Your task to perform on an android device: Open settings on Google Maps Image 0: 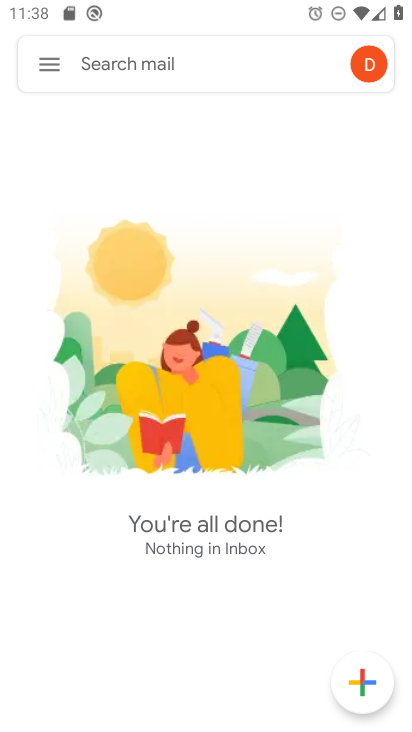
Step 0: press home button
Your task to perform on an android device: Open settings on Google Maps Image 1: 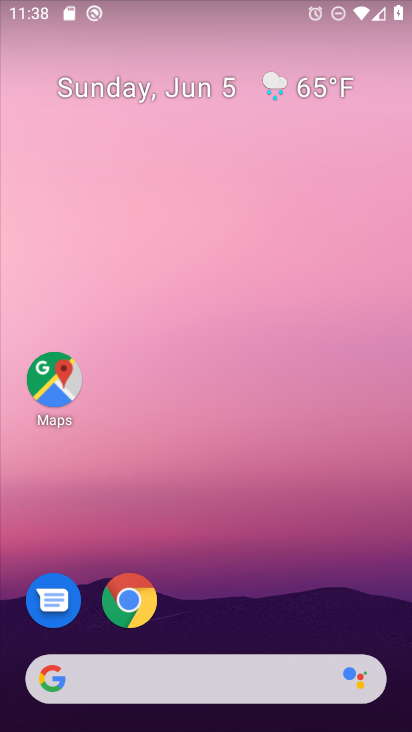
Step 1: drag from (393, 612) to (244, 87)
Your task to perform on an android device: Open settings on Google Maps Image 2: 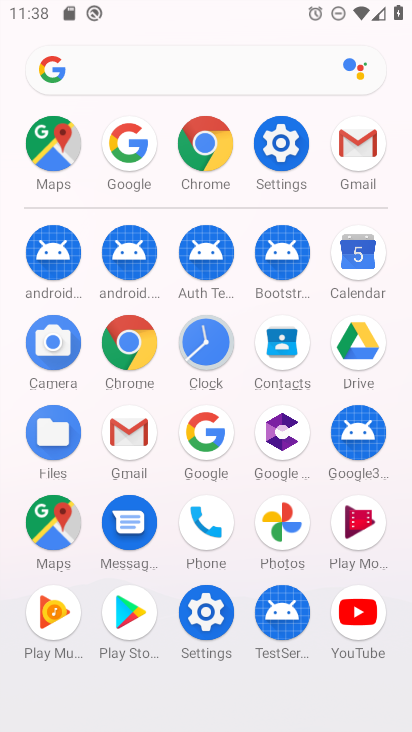
Step 2: click (210, 625)
Your task to perform on an android device: Open settings on Google Maps Image 3: 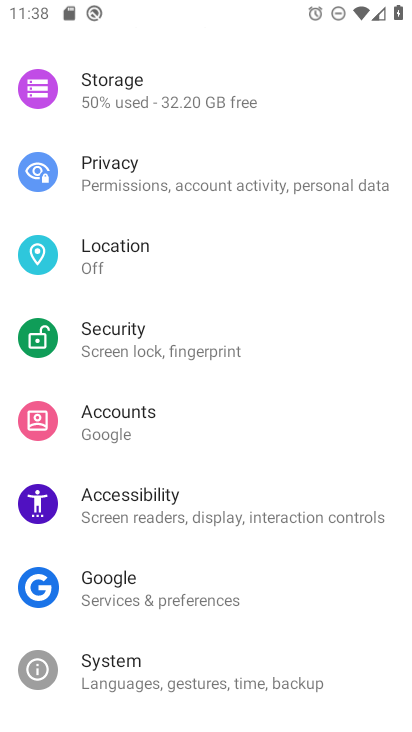
Step 3: press home button
Your task to perform on an android device: Open settings on Google Maps Image 4: 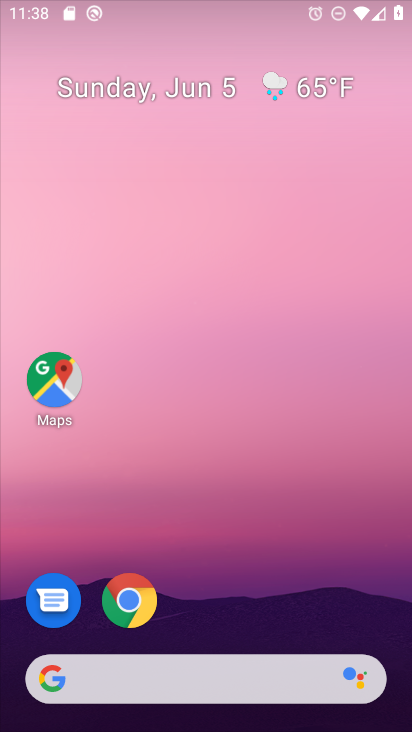
Step 4: drag from (312, 587) to (228, 51)
Your task to perform on an android device: Open settings on Google Maps Image 5: 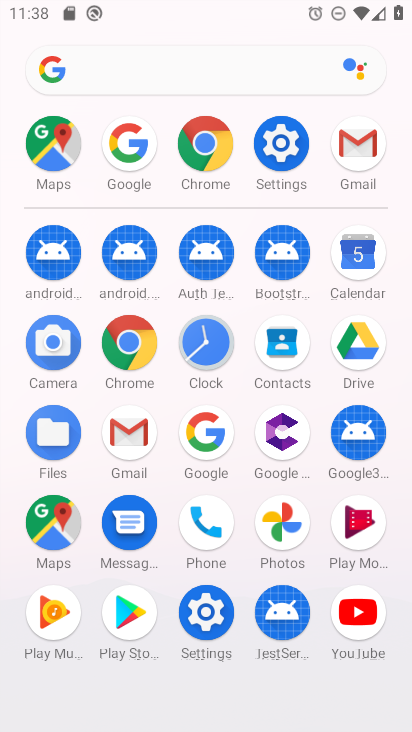
Step 5: click (33, 535)
Your task to perform on an android device: Open settings on Google Maps Image 6: 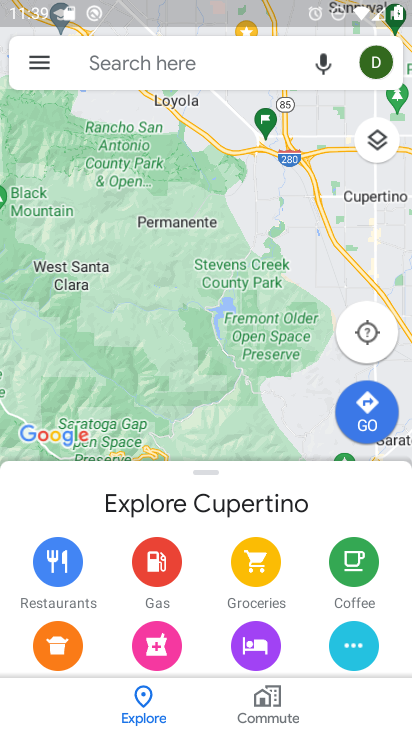
Step 6: click (38, 60)
Your task to perform on an android device: Open settings on Google Maps Image 7: 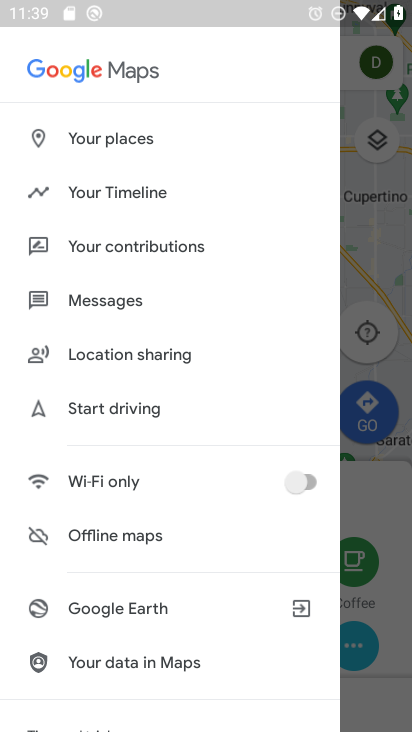
Step 7: drag from (122, 650) to (154, 91)
Your task to perform on an android device: Open settings on Google Maps Image 8: 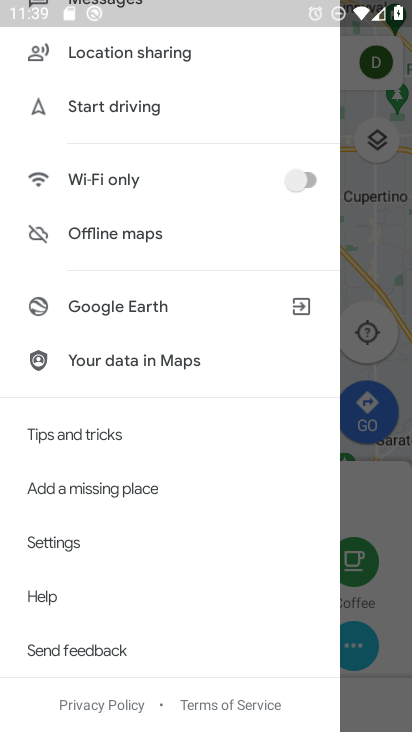
Step 8: click (70, 550)
Your task to perform on an android device: Open settings on Google Maps Image 9: 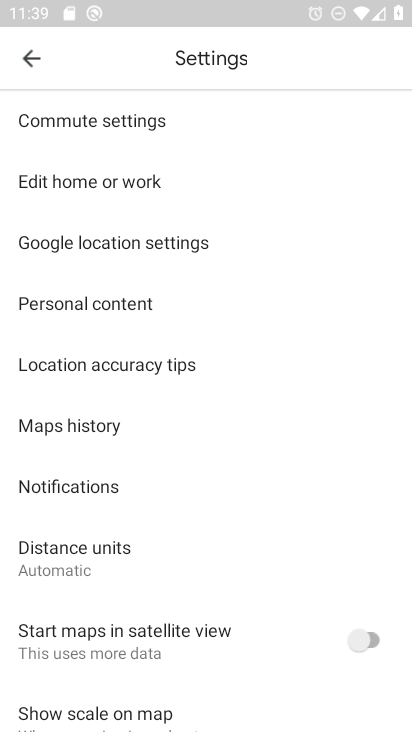
Step 9: task complete